Your task to perform on an android device: Open Google Image 0: 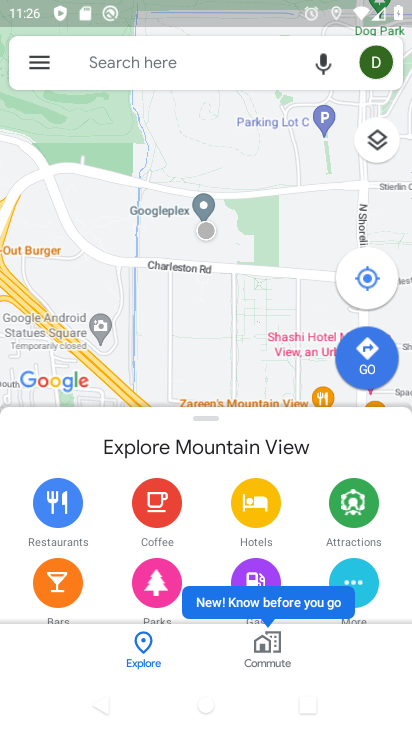
Step 0: press back button
Your task to perform on an android device: Open Google Image 1: 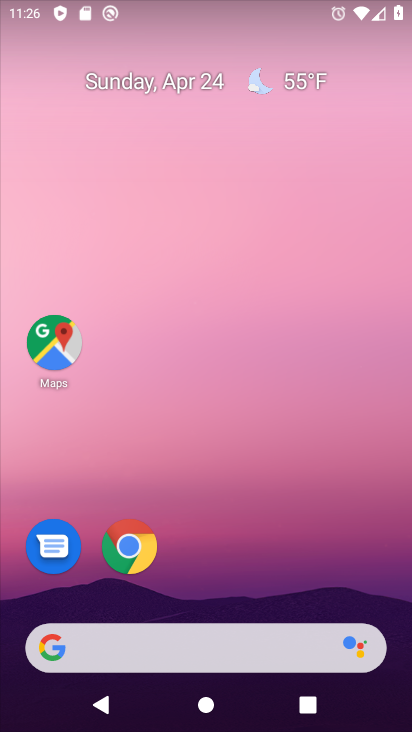
Step 1: drag from (235, 516) to (180, 22)
Your task to perform on an android device: Open Google Image 2: 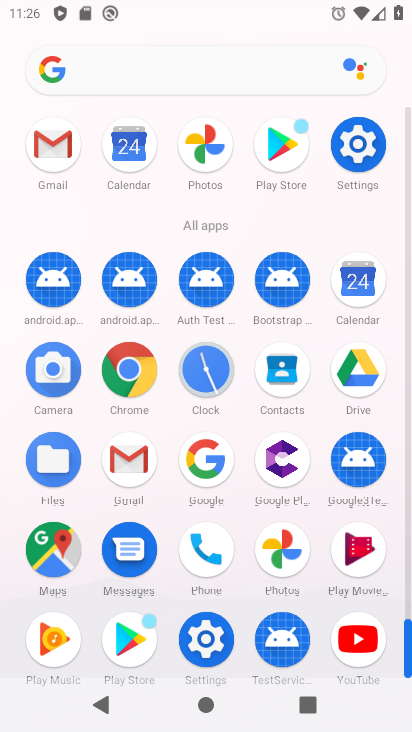
Step 2: click (202, 459)
Your task to perform on an android device: Open Google Image 3: 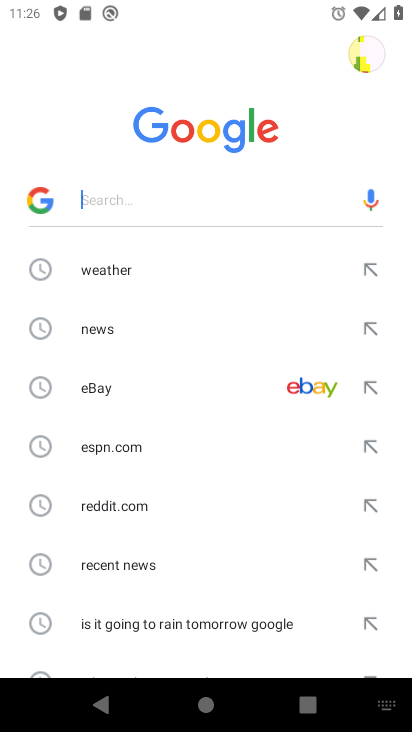
Step 3: task complete